Your task to perform on an android device: What's on my calendar tomorrow? Image 0: 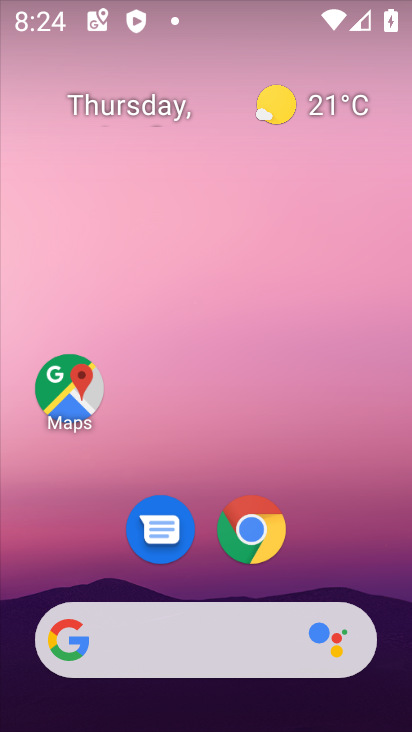
Step 0: drag from (123, 716) to (101, 30)
Your task to perform on an android device: What's on my calendar tomorrow? Image 1: 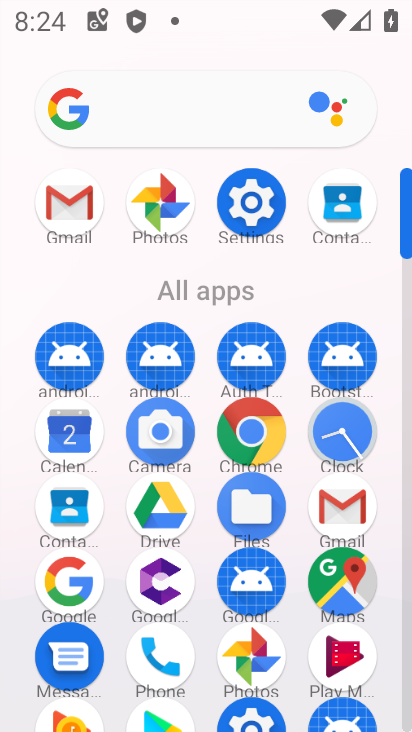
Step 1: click (88, 438)
Your task to perform on an android device: What's on my calendar tomorrow? Image 2: 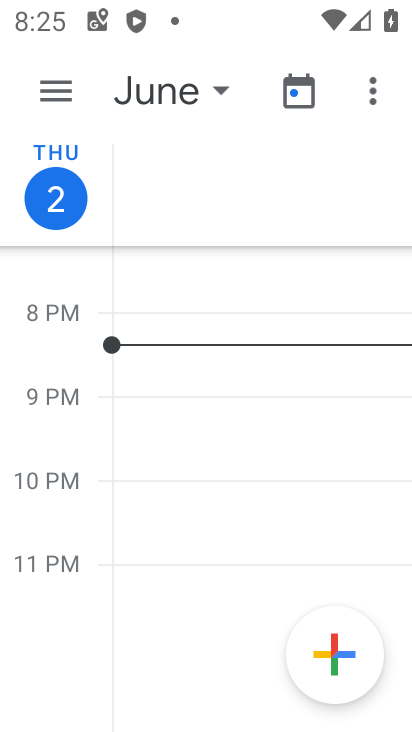
Step 2: task complete